Your task to perform on an android device: Open Wikipedia Image 0: 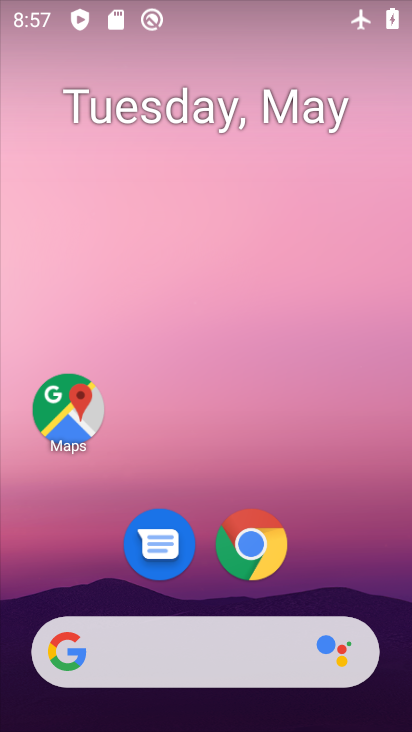
Step 0: drag from (359, 578) to (335, 170)
Your task to perform on an android device: Open Wikipedia Image 1: 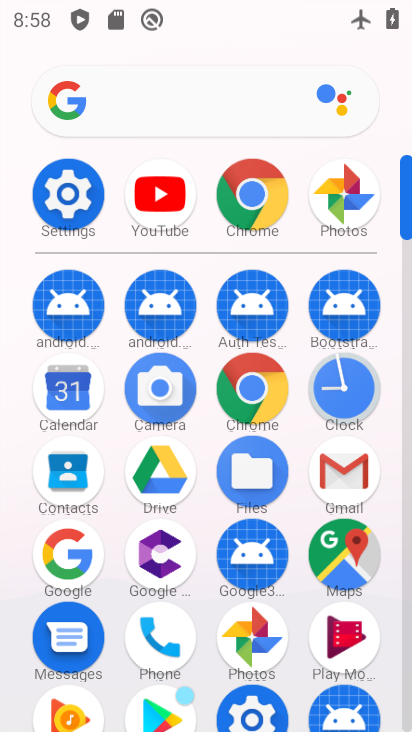
Step 1: drag from (205, 593) to (200, 299)
Your task to perform on an android device: Open Wikipedia Image 2: 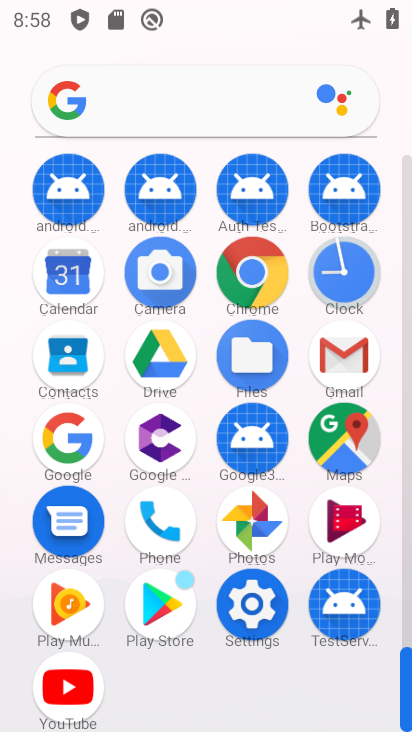
Step 2: click (257, 276)
Your task to perform on an android device: Open Wikipedia Image 3: 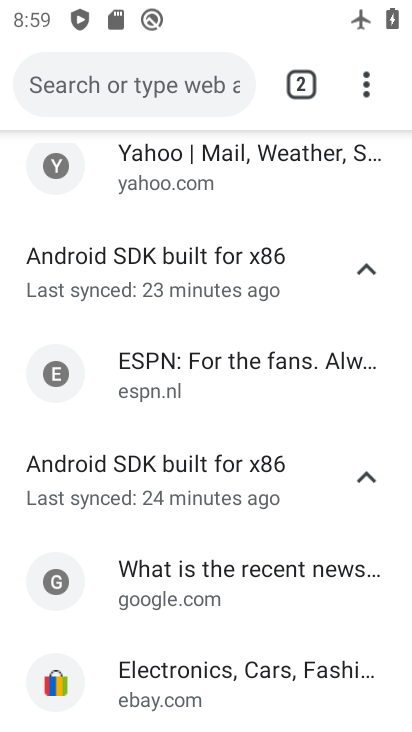
Step 3: task complete